Your task to perform on an android device: search for starred emails in the gmail app Image 0: 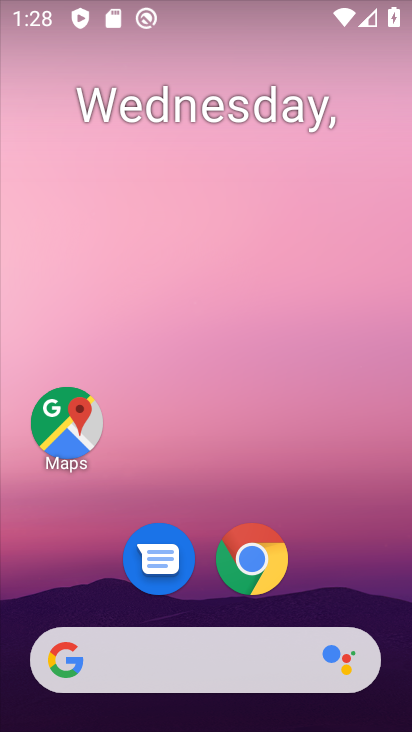
Step 0: drag from (209, 595) to (219, 25)
Your task to perform on an android device: search for starred emails in the gmail app Image 1: 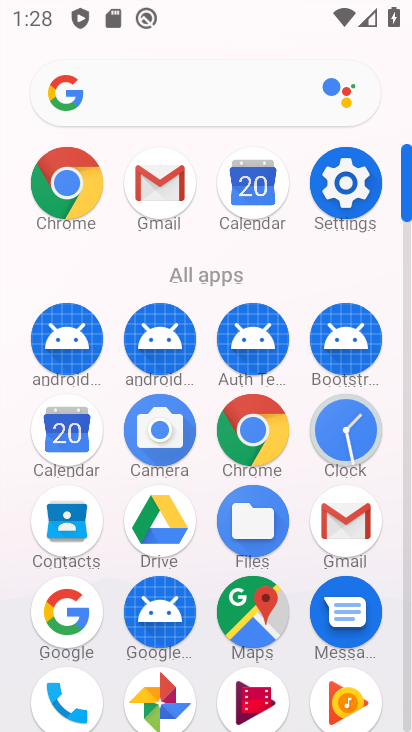
Step 1: click (176, 172)
Your task to perform on an android device: search for starred emails in the gmail app Image 2: 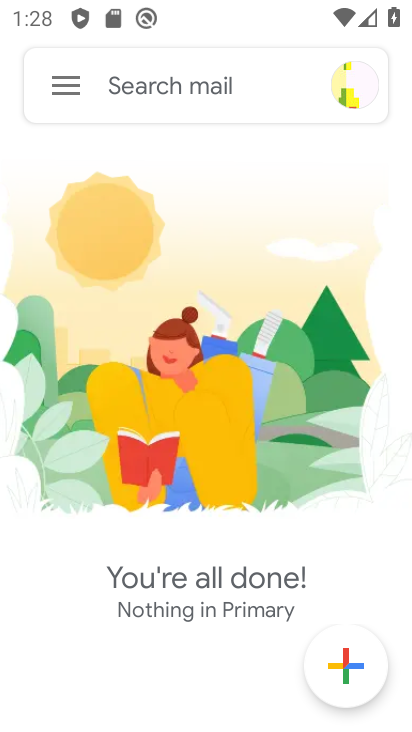
Step 2: click (59, 77)
Your task to perform on an android device: search for starred emails in the gmail app Image 3: 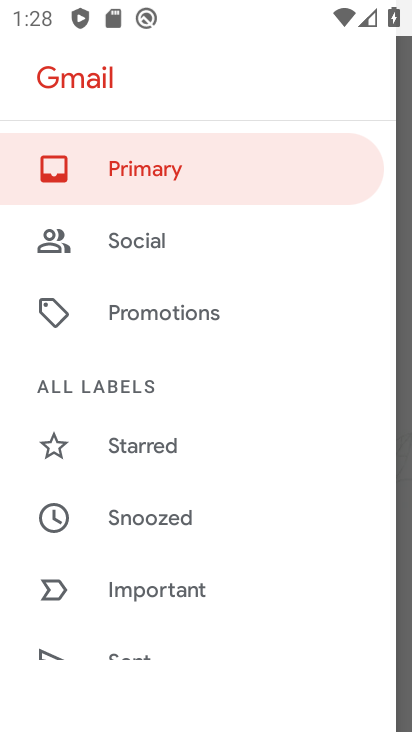
Step 3: click (125, 444)
Your task to perform on an android device: search for starred emails in the gmail app Image 4: 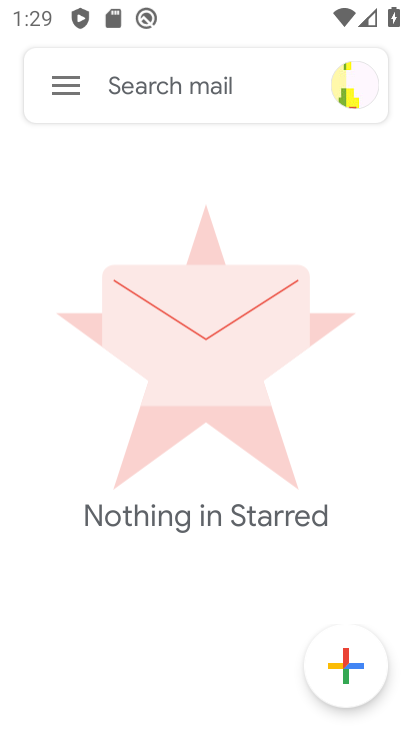
Step 4: task complete